Your task to perform on an android device: turn pop-ups on in chrome Image 0: 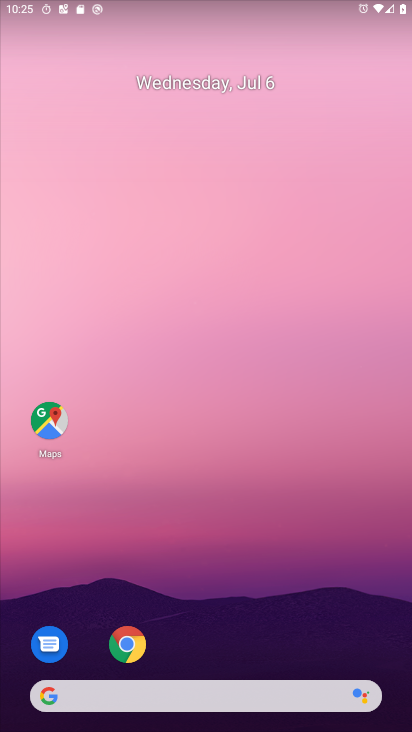
Step 0: drag from (216, 600) to (213, 166)
Your task to perform on an android device: turn pop-ups on in chrome Image 1: 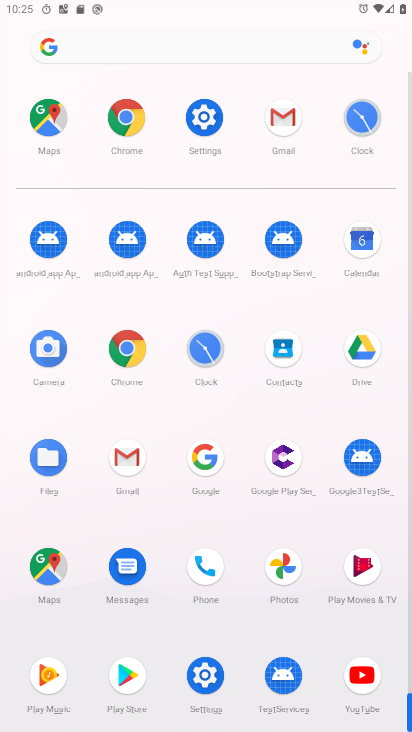
Step 1: drag from (202, 491) to (202, 389)
Your task to perform on an android device: turn pop-ups on in chrome Image 2: 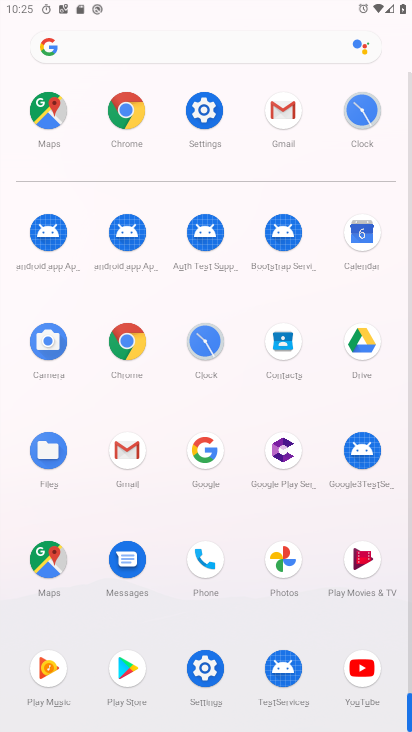
Step 2: click (135, 121)
Your task to perform on an android device: turn pop-ups on in chrome Image 3: 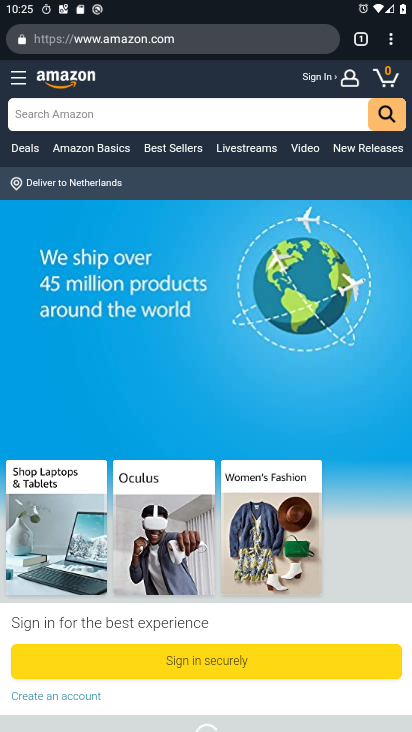
Step 3: click (388, 41)
Your task to perform on an android device: turn pop-ups on in chrome Image 4: 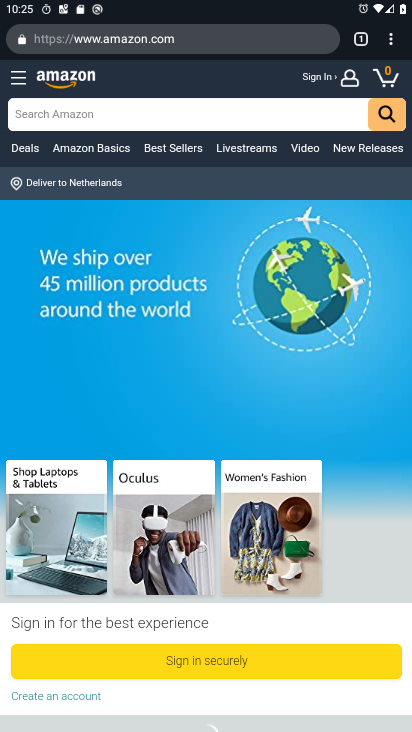
Step 4: click (399, 48)
Your task to perform on an android device: turn pop-ups on in chrome Image 5: 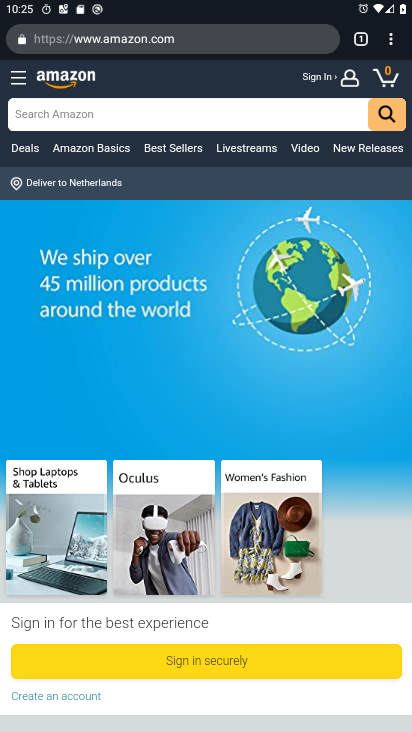
Step 5: click (398, 38)
Your task to perform on an android device: turn pop-ups on in chrome Image 6: 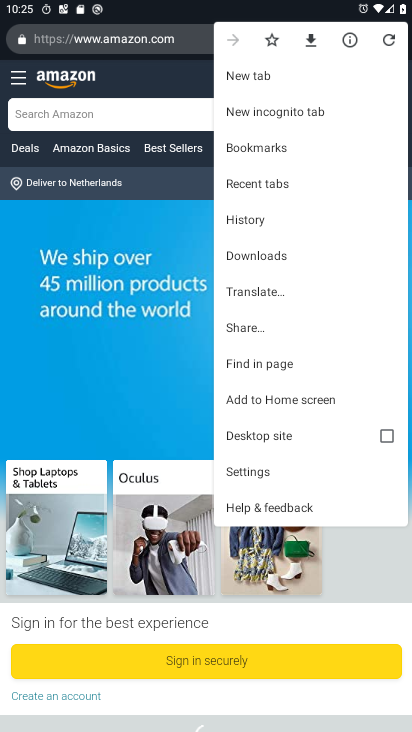
Step 6: click (291, 471)
Your task to perform on an android device: turn pop-ups on in chrome Image 7: 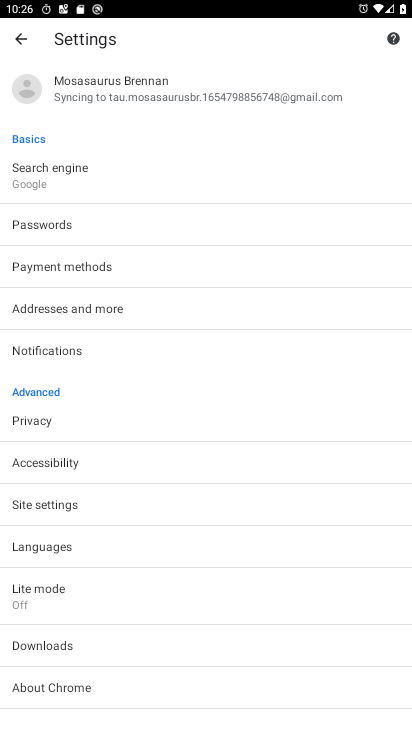
Step 7: drag from (139, 347) to (132, 461)
Your task to perform on an android device: turn pop-ups on in chrome Image 8: 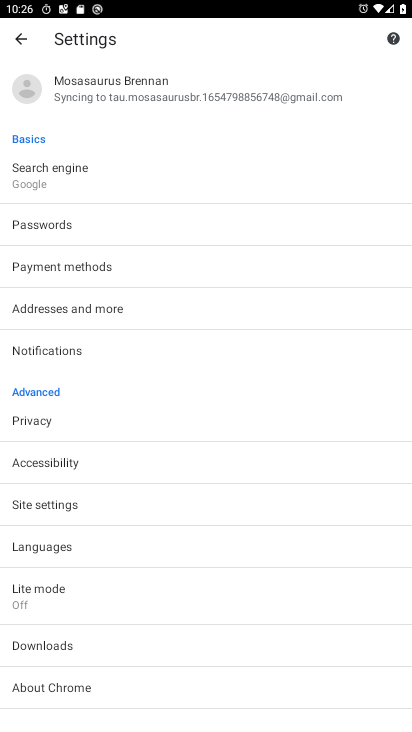
Step 8: drag from (88, 635) to (90, 562)
Your task to perform on an android device: turn pop-ups on in chrome Image 9: 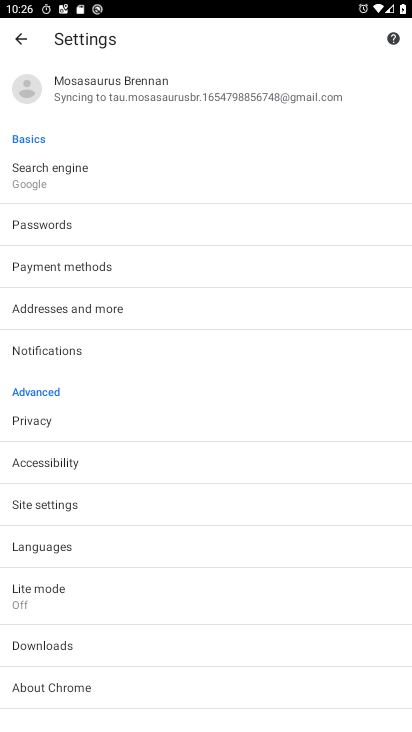
Step 9: click (66, 504)
Your task to perform on an android device: turn pop-ups on in chrome Image 10: 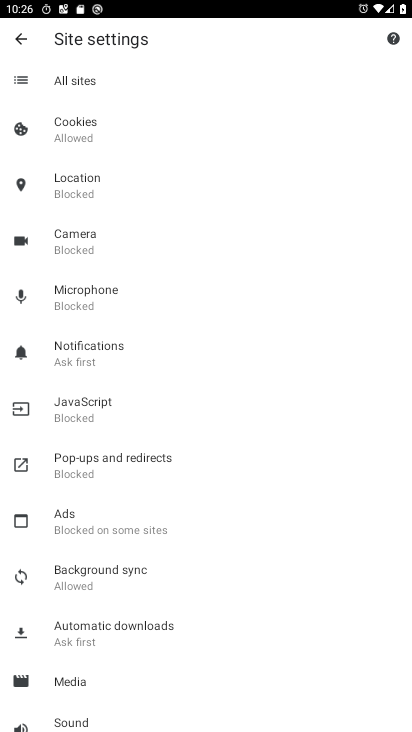
Step 10: click (96, 470)
Your task to perform on an android device: turn pop-ups on in chrome Image 11: 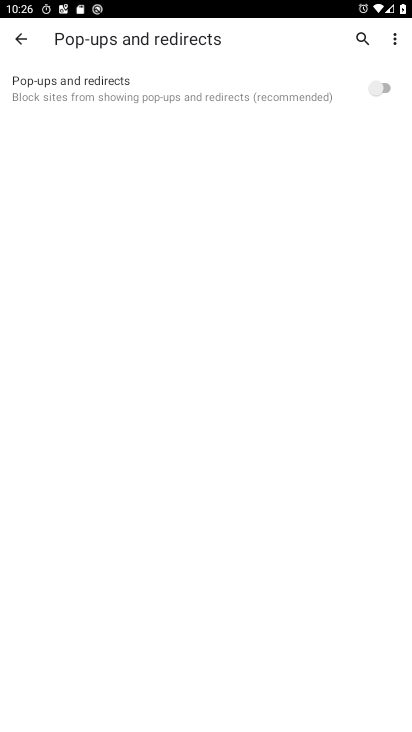
Step 11: click (308, 99)
Your task to perform on an android device: turn pop-ups on in chrome Image 12: 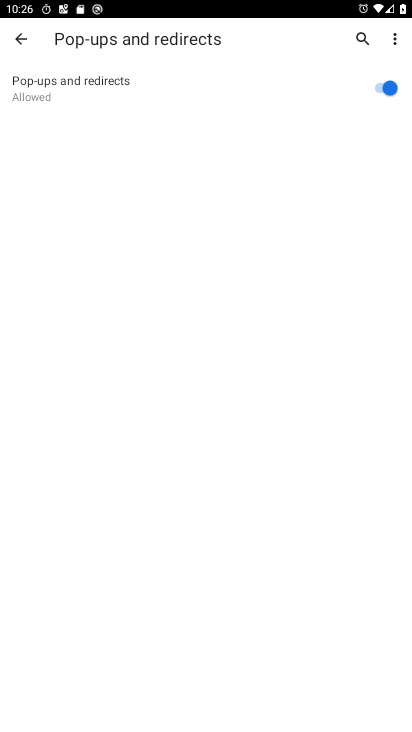
Step 12: task complete